Your task to perform on an android device: Go to internet settings Image 0: 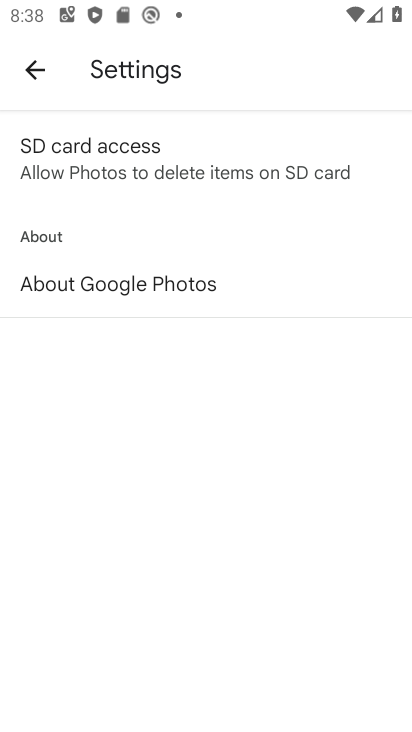
Step 0: press home button
Your task to perform on an android device: Go to internet settings Image 1: 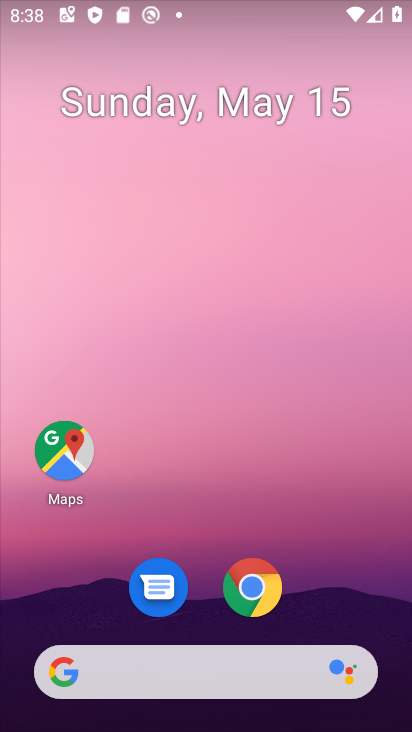
Step 1: drag from (379, 637) to (287, 111)
Your task to perform on an android device: Go to internet settings Image 2: 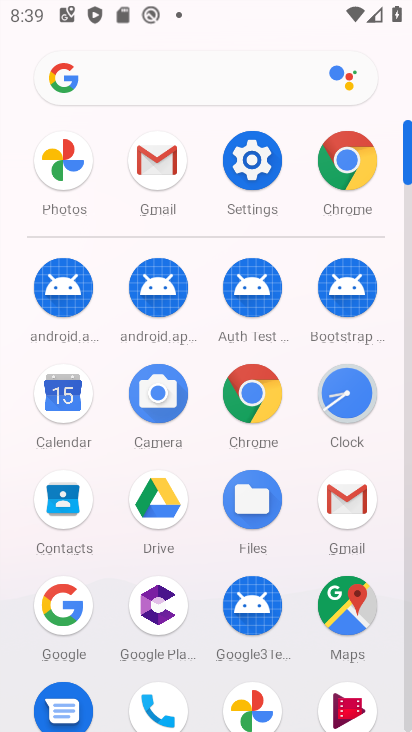
Step 2: click (285, 164)
Your task to perform on an android device: Go to internet settings Image 3: 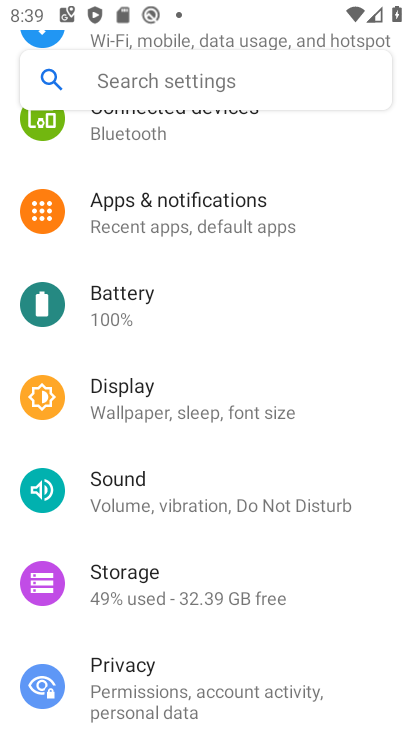
Step 3: drag from (285, 164) to (262, 650)
Your task to perform on an android device: Go to internet settings Image 4: 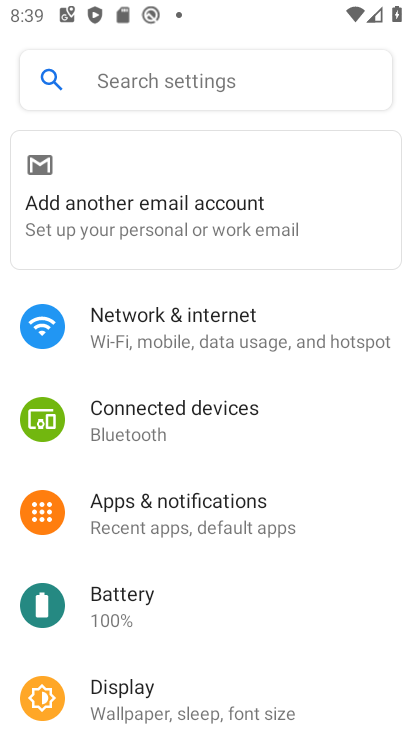
Step 4: click (218, 304)
Your task to perform on an android device: Go to internet settings Image 5: 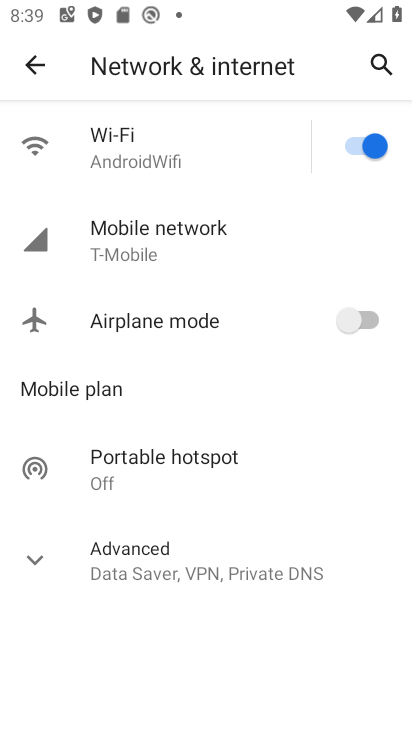
Step 5: task complete